Your task to perform on an android device: What's the weather? Image 0: 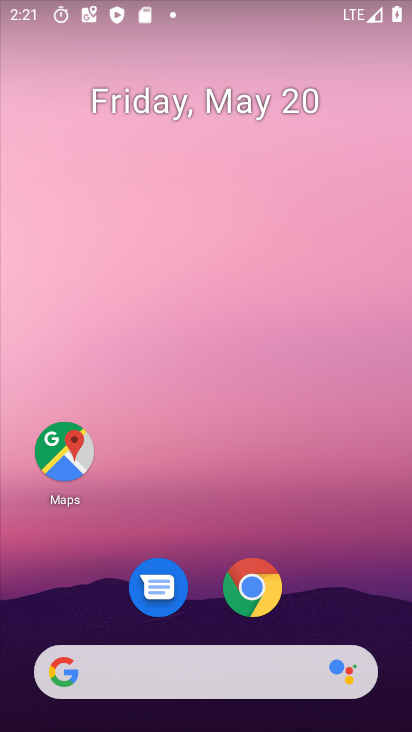
Step 0: drag from (343, 522) to (301, 135)
Your task to perform on an android device: What's the weather? Image 1: 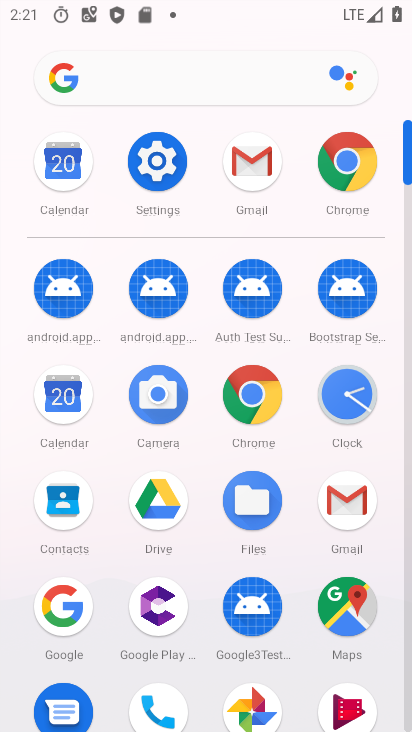
Step 1: click (362, 164)
Your task to perform on an android device: What's the weather? Image 2: 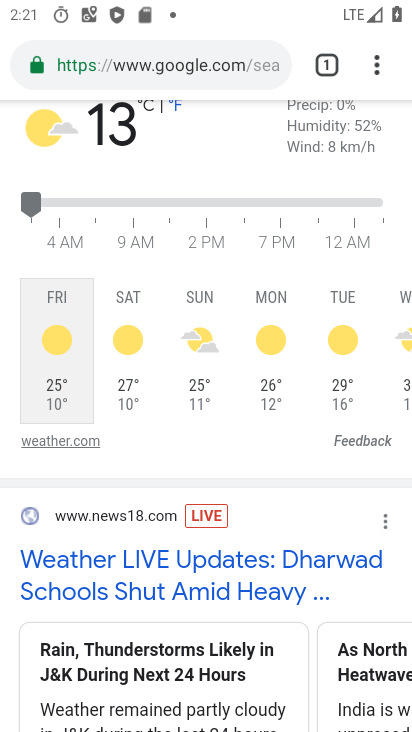
Step 2: press home button
Your task to perform on an android device: What's the weather? Image 3: 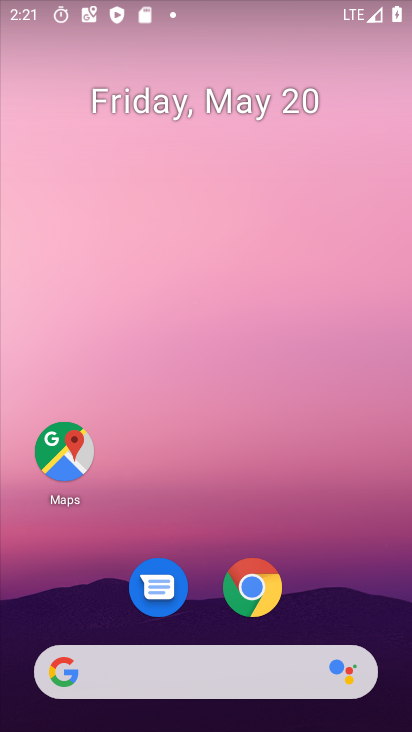
Step 3: click (248, 581)
Your task to perform on an android device: What's the weather? Image 4: 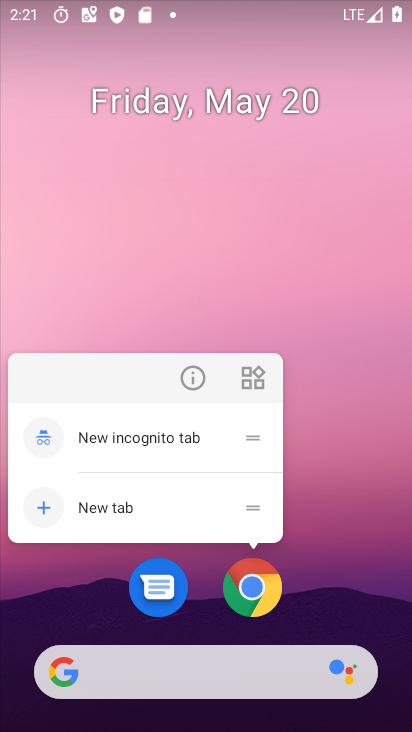
Step 4: click (248, 585)
Your task to perform on an android device: What's the weather? Image 5: 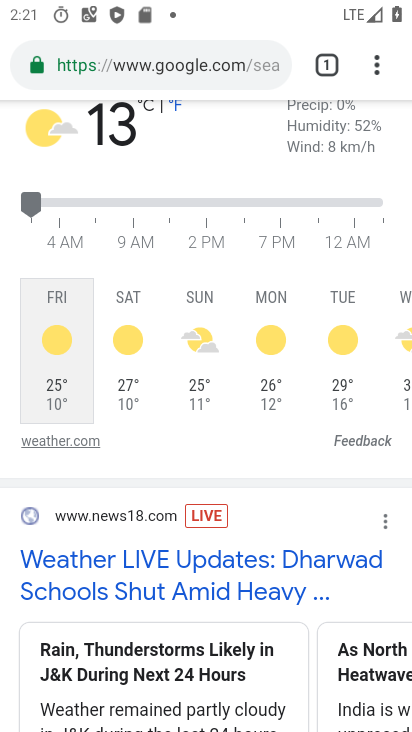
Step 5: task complete